Your task to perform on an android device: Turn off the flashlight Image 0: 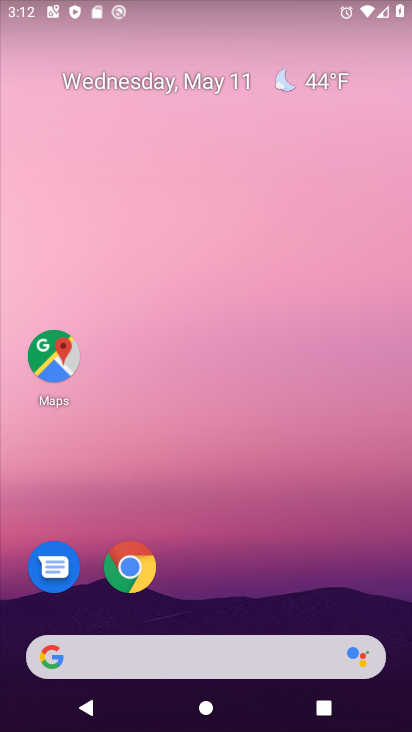
Step 0: drag from (222, 545) to (201, 38)
Your task to perform on an android device: Turn off the flashlight Image 1: 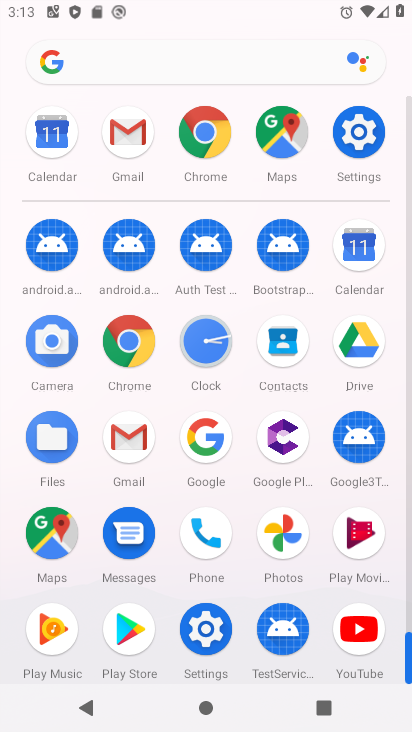
Step 1: click (205, 630)
Your task to perform on an android device: Turn off the flashlight Image 2: 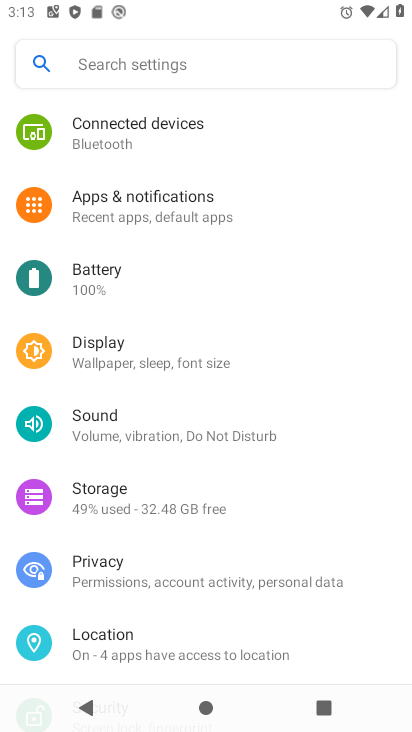
Step 2: drag from (246, 137) to (229, 621)
Your task to perform on an android device: Turn off the flashlight Image 3: 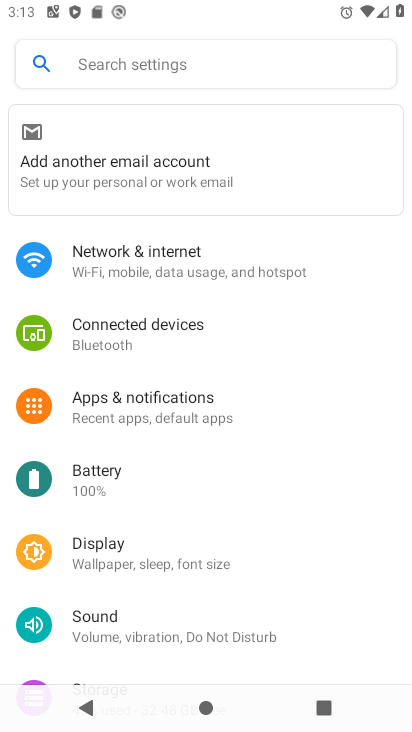
Step 3: click (184, 259)
Your task to perform on an android device: Turn off the flashlight Image 4: 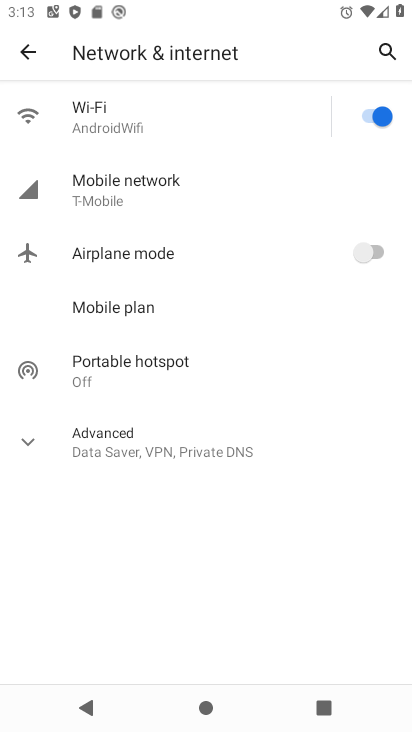
Step 4: click (31, 452)
Your task to perform on an android device: Turn off the flashlight Image 5: 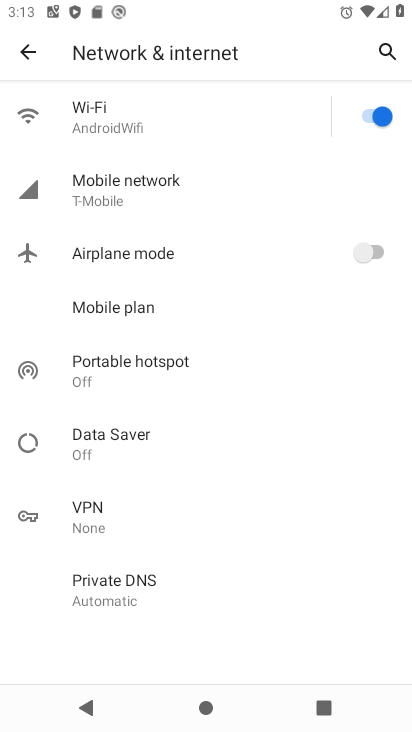
Step 5: task complete